Your task to perform on an android device: Show me popular videos on Youtube Image 0: 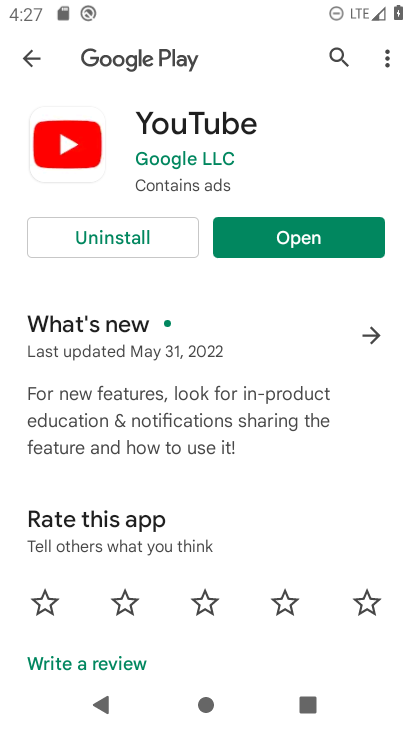
Step 0: press home button
Your task to perform on an android device: Show me popular videos on Youtube Image 1: 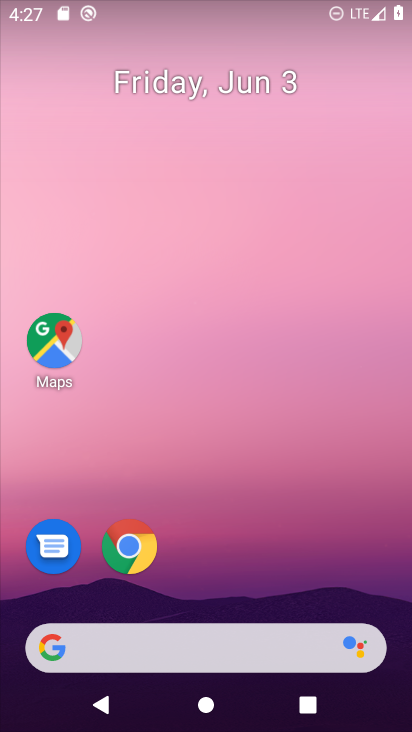
Step 1: drag from (244, 554) to (236, 22)
Your task to perform on an android device: Show me popular videos on Youtube Image 2: 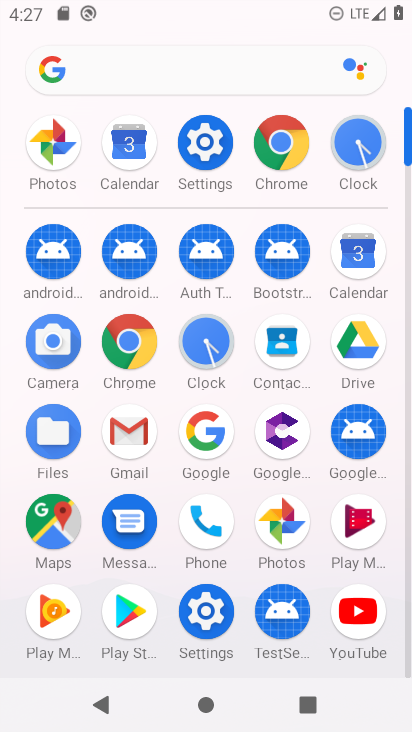
Step 2: click (356, 596)
Your task to perform on an android device: Show me popular videos on Youtube Image 3: 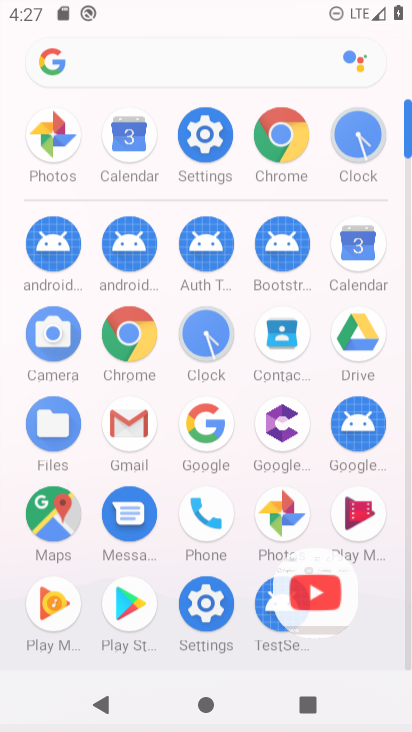
Step 3: click (356, 602)
Your task to perform on an android device: Show me popular videos on Youtube Image 4: 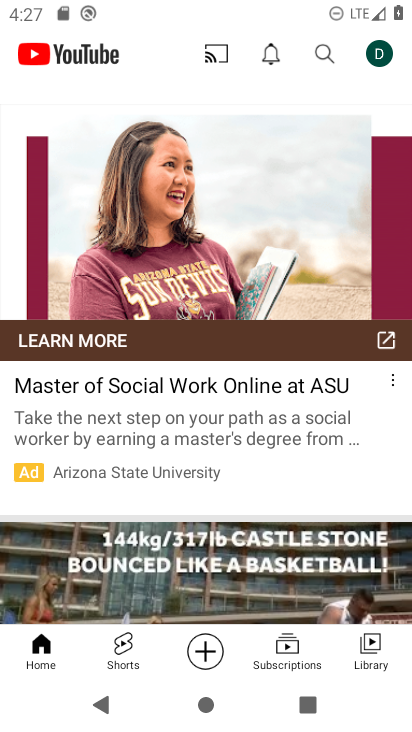
Step 4: click (321, 39)
Your task to perform on an android device: Show me popular videos on Youtube Image 5: 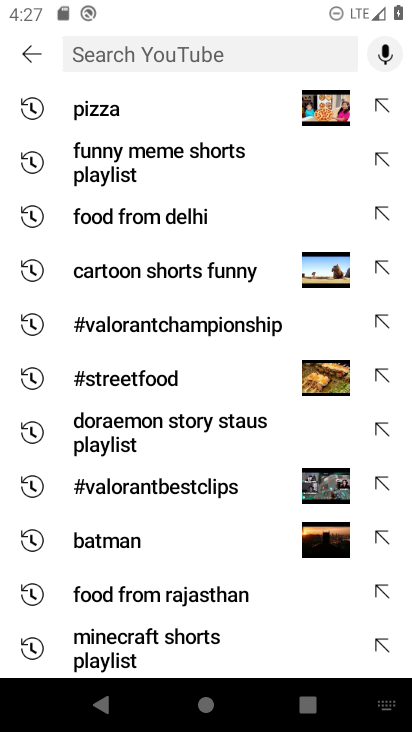
Step 5: type "popular videos"
Your task to perform on an android device: Show me popular videos on Youtube Image 6: 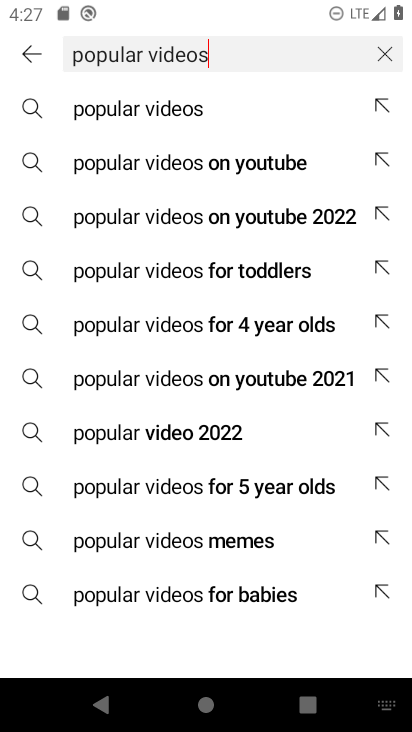
Step 6: click (186, 151)
Your task to perform on an android device: Show me popular videos on Youtube Image 7: 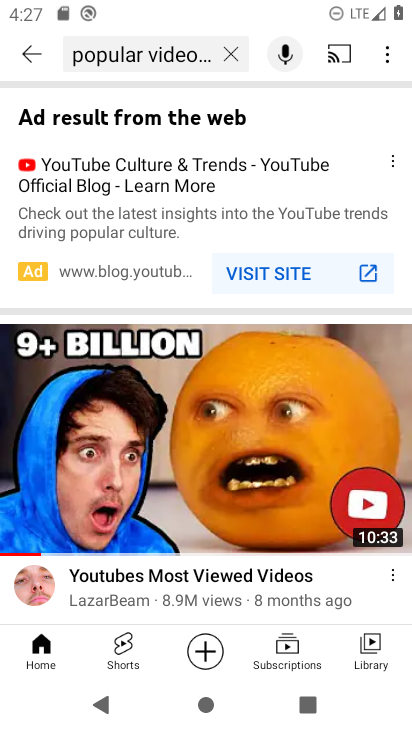
Step 7: task complete